Your task to perform on an android device: delete browsing data in the chrome app Image 0: 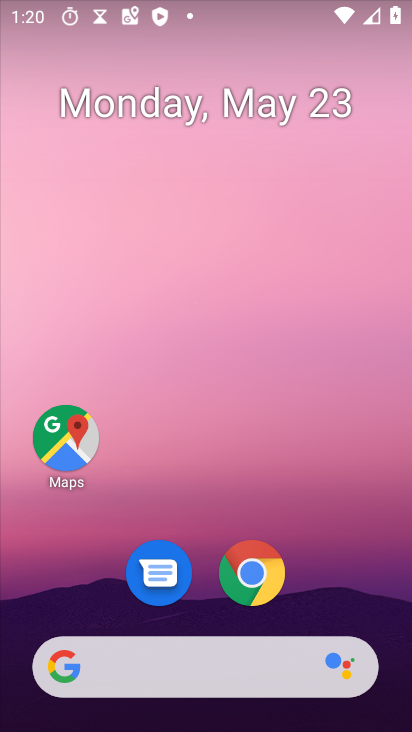
Step 0: press home button
Your task to perform on an android device: delete browsing data in the chrome app Image 1: 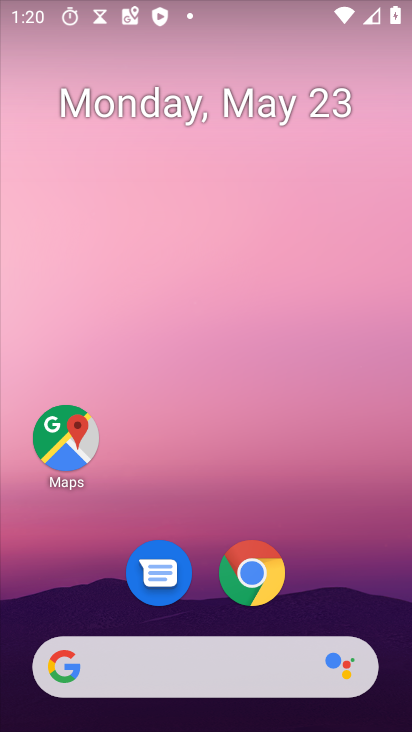
Step 1: click (248, 572)
Your task to perform on an android device: delete browsing data in the chrome app Image 2: 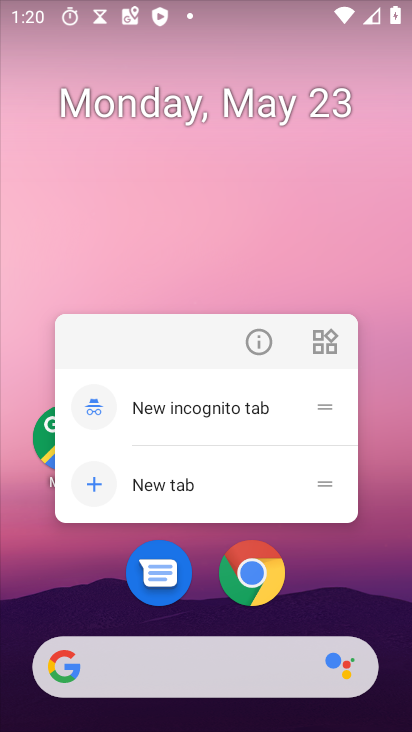
Step 2: click (263, 581)
Your task to perform on an android device: delete browsing data in the chrome app Image 3: 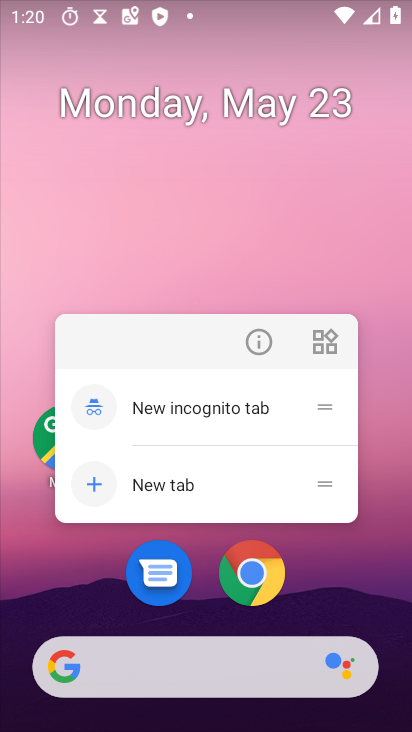
Step 3: click (255, 585)
Your task to perform on an android device: delete browsing data in the chrome app Image 4: 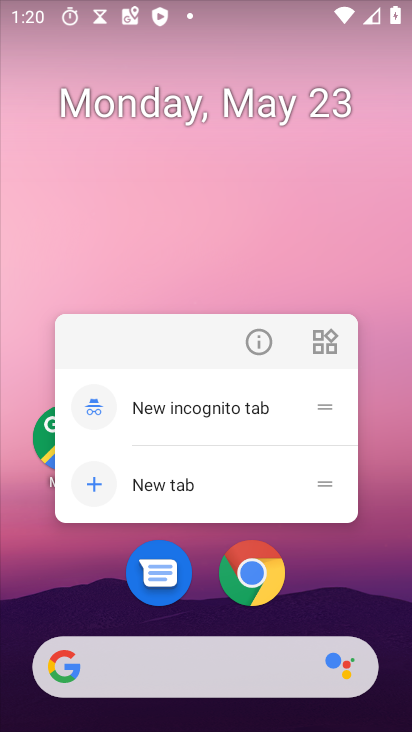
Step 4: click (248, 586)
Your task to perform on an android device: delete browsing data in the chrome app Image 5: 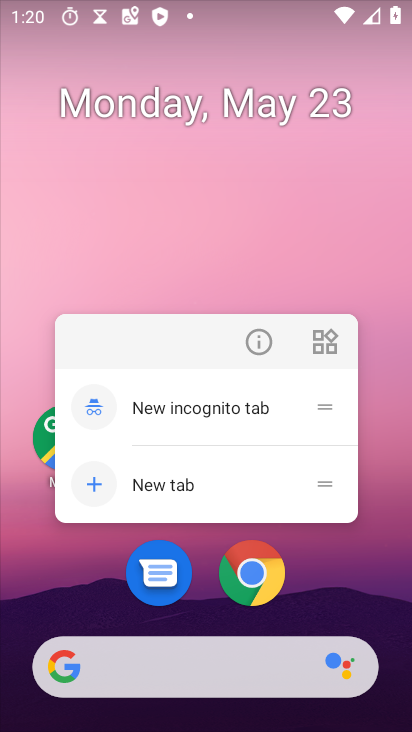
Step 5: click (263, 562)
Your task to perform on an android device: delete browsing data in the chrome app Image 6: 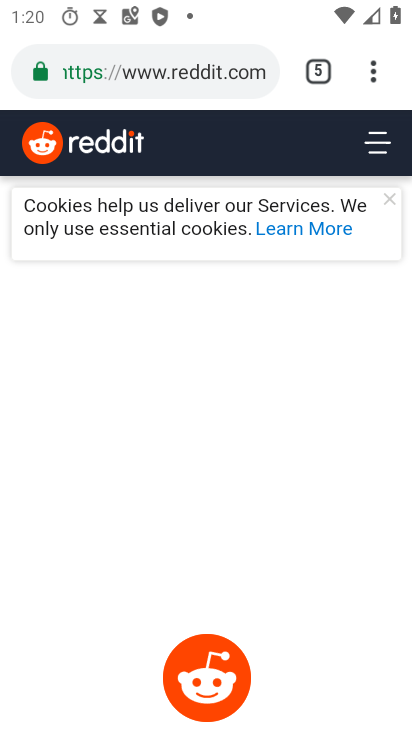
Step 6: drag from (379, 66) to (211, 574)
Your task to perform on an android device: delete browsing data in the chrome app Image 7: 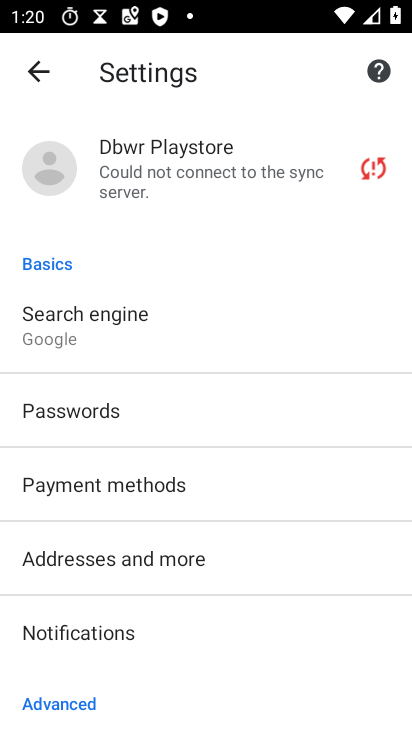
Step 7: drag from (140, 651) to (211, 333)
Your task to perform on an android device: delete browsing data in the chrome app Image 8: 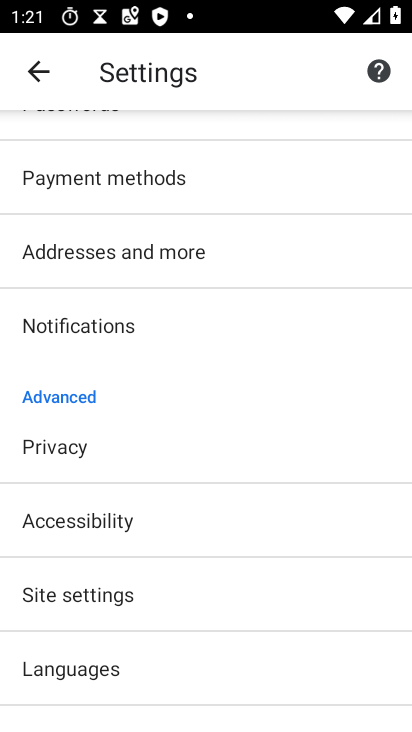
Step 8: click (63, 446)
Your task to perform on an android device: delete browsing data in the chrome app Image 9: 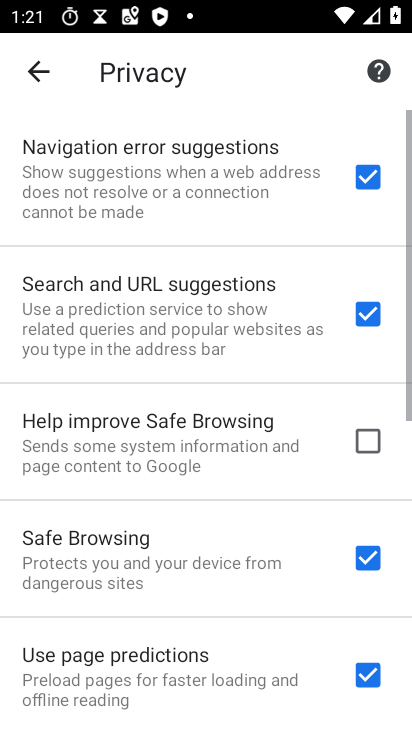
Step 9: drag from (206, 651) to (376, 76)
Your task to perform on an android device: delete browsing data in the chrome app Image 10: 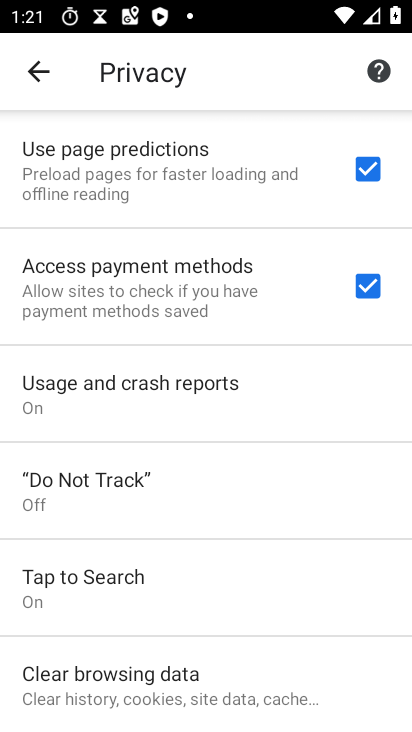
Step 10: click (138, 688)
Your task to perform on an android device: delete browsing data in the chrome app Image 11: 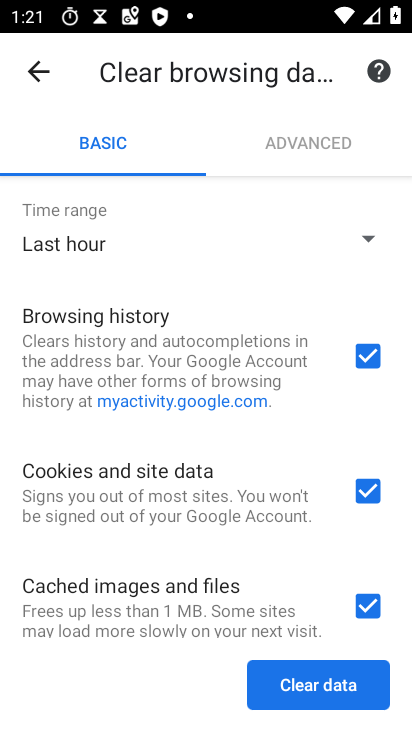
Step 11: click (300, 693)
Your task to perform on an android device: delete browsing data in the chrome app Image 12: 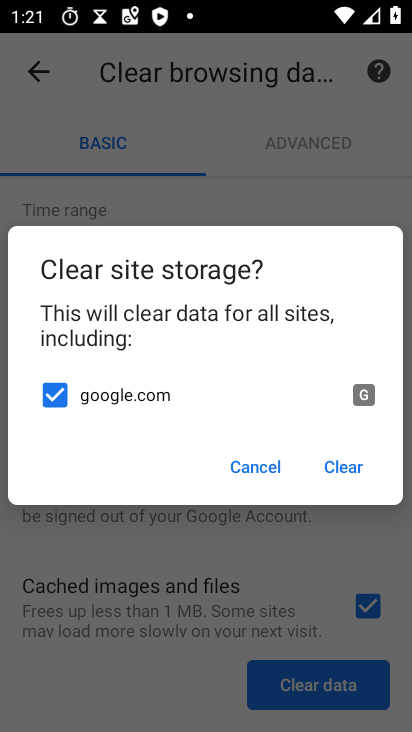
Step 12: click (353, 467)
Your task to perform on an android device: delete browsing data in the chrome app Image 13: 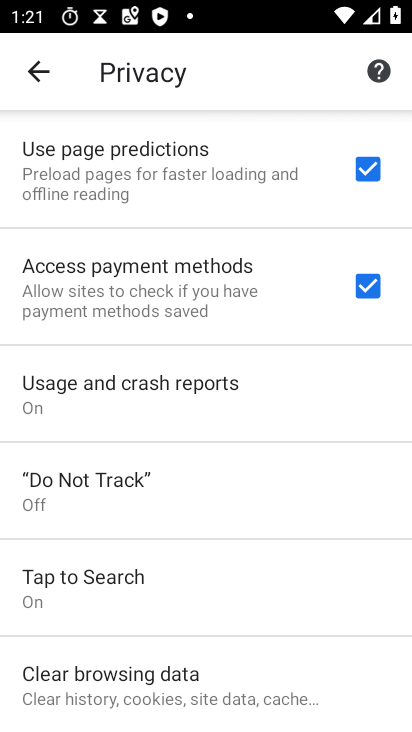
Step 13: task complete